Your task to perform on an android device: Turn off the flashlight Image 0: 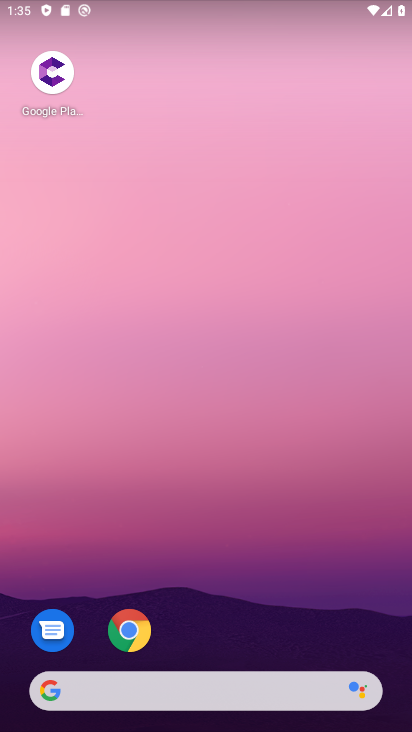
Step 0: drag from (217, 604) to (252, 68)
Your task to perform on an android device: Turn off the flashlight Image 1: 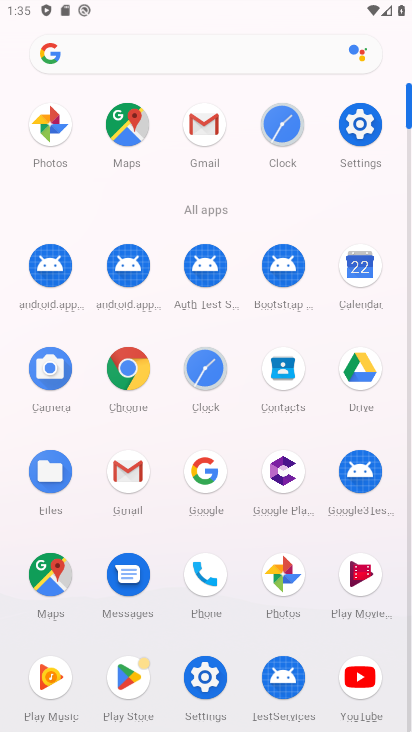
Step 1: click (354, 129)
Your task to perform on an android device: Turn off the flashlight Image 2: 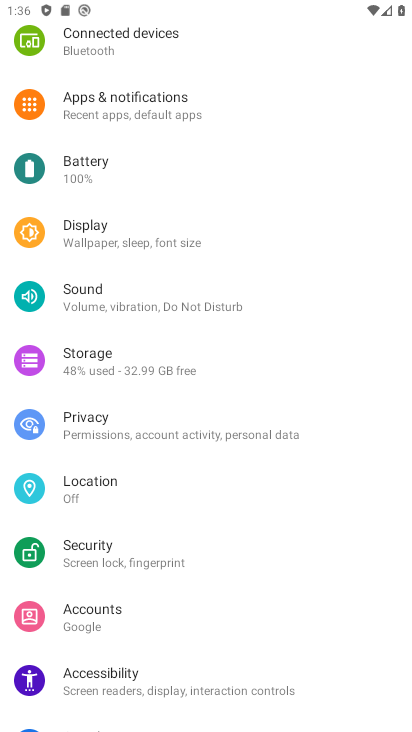
Step 2: drag from (290, 83) to (308, 590)
Your task to perform on an android device: Turn off the flashlight Image 3: 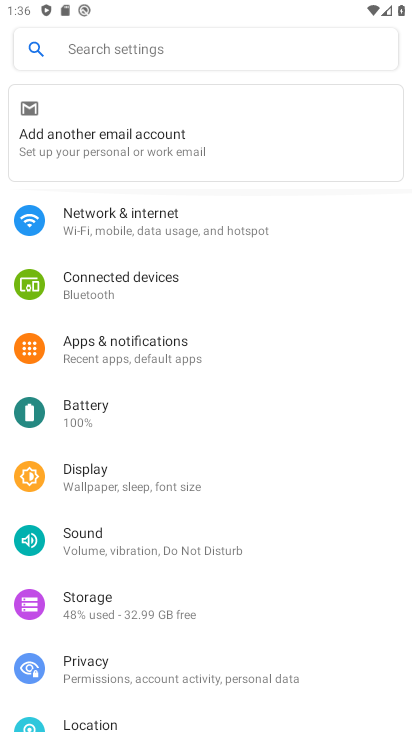
Step 3: click (182, 57)
Your task to perform on an android device: Turn off the flashlight Image 4: 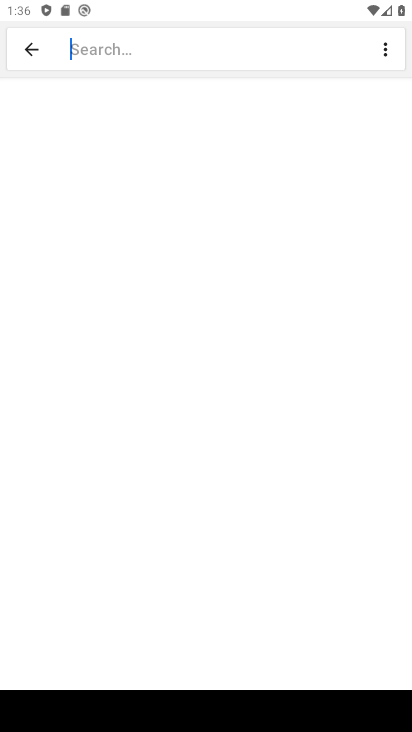
Step 4: type "flashlight"
Your task to perform on an android device: Turn off the flashlight Image 5: 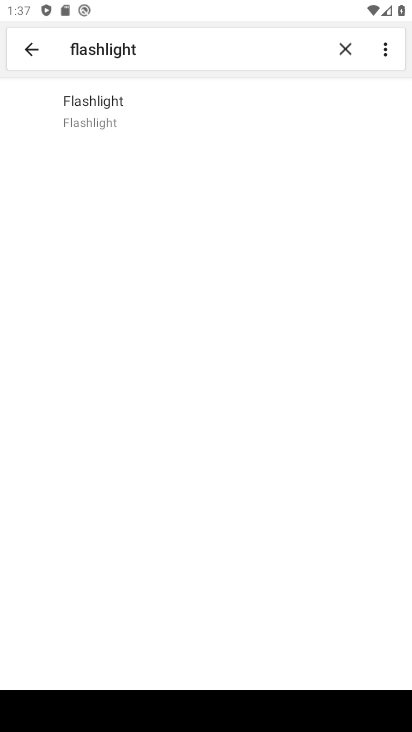
Step 5: task complete